Your task to perform on an android device: Open Maps and search for coffee Image 0: 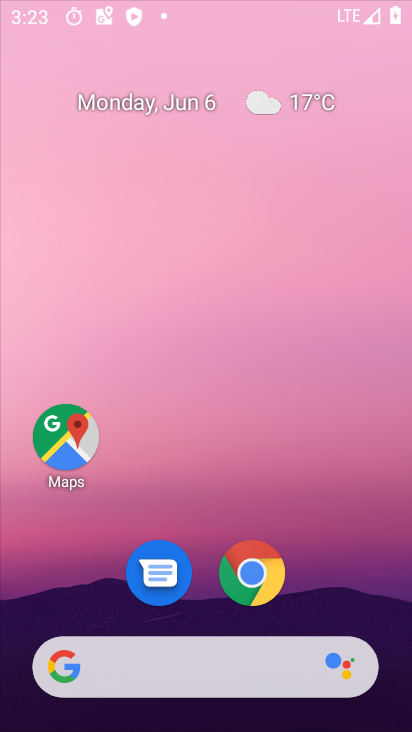
Step 0: drag from (348, 598) to (382, 316)
Your task to perform on an android device: Open Maps and search for coffee Image 1: 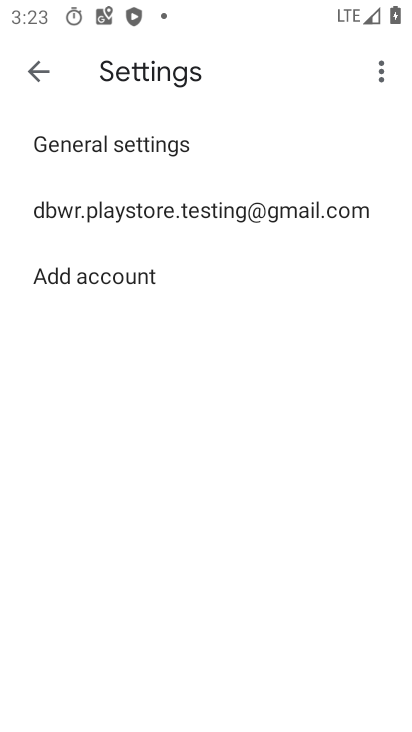
Step 1: press home button
Your task to perform on an android device: Open Maps and search for coffee Image 2: 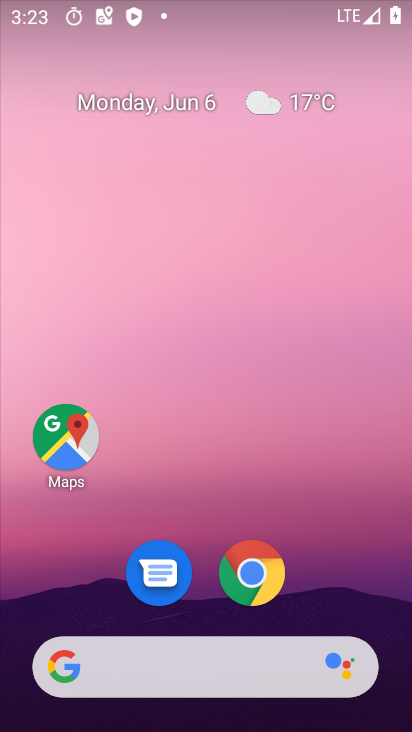
Step 2: drag from (364, 598) to (361, 193)
Your task to perform on an android device: Open Maps and search for coffee Image 3: 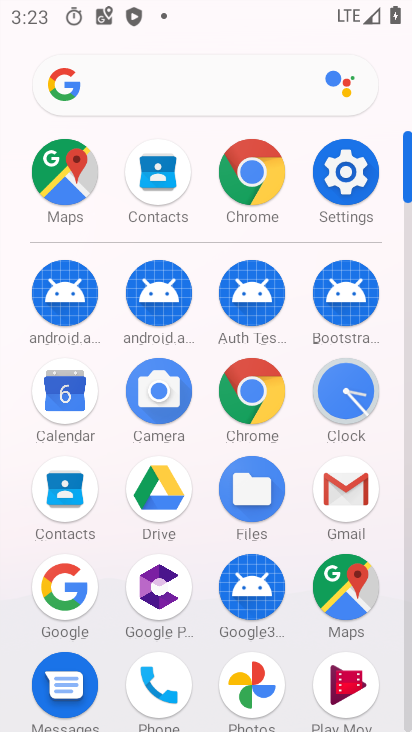
Step 3: click (361, 586)
Your task to perform on an android device: Open Maps and search for coffee Image 4: 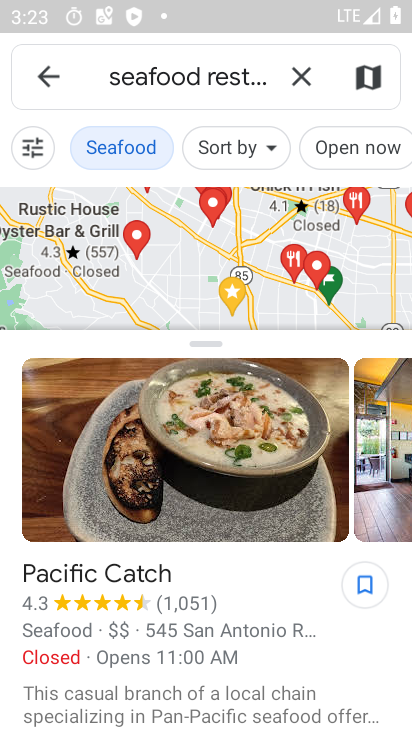
Step 4: click (299, 80)
Your task to perform on an android device: Open Maps and search for coffee Image 5: 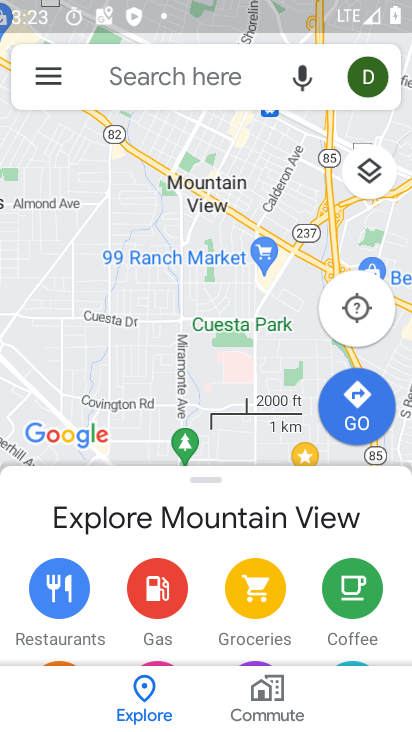
Step 5: click (236, 83)
Your task to perform on an android device: Open Maps and search for coffee Image 6: 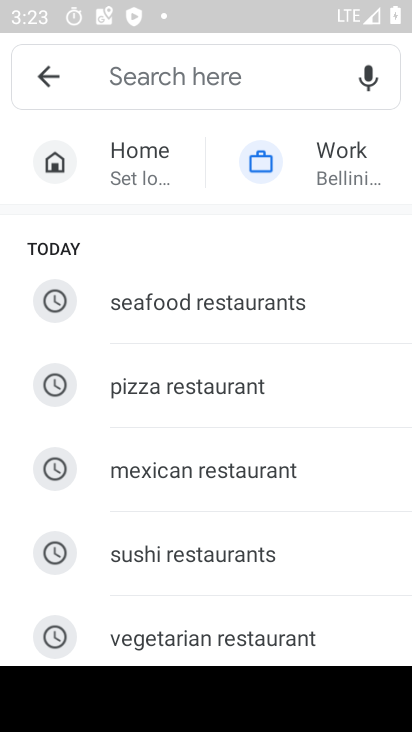
Step 6: type "coffee"
Your task to perform on an android device: Open Maps and search for coffee Image 7: 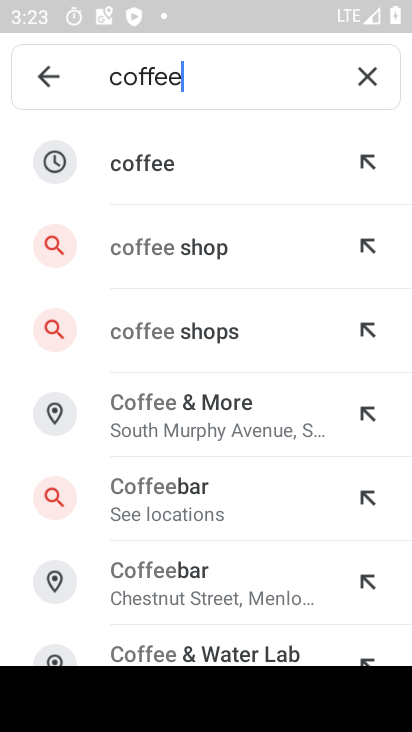
Step 7: click (235, 168)
Your task to perform on an android device: Open Maps and search for coffee Image 8: 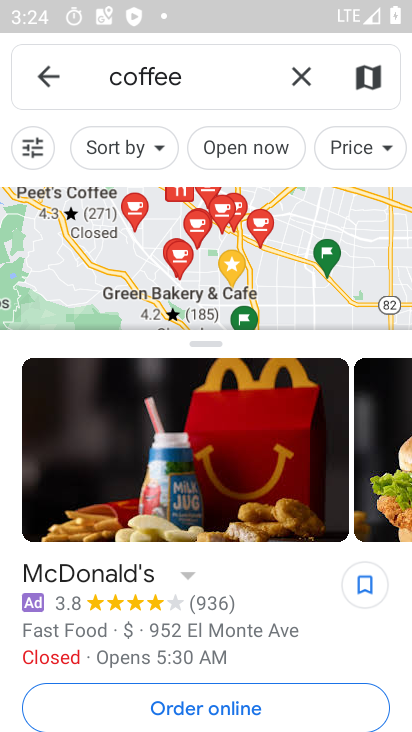
Step 8: task complete